Your task to perform on an android device: turn off data saver in the chrome app Image 0: 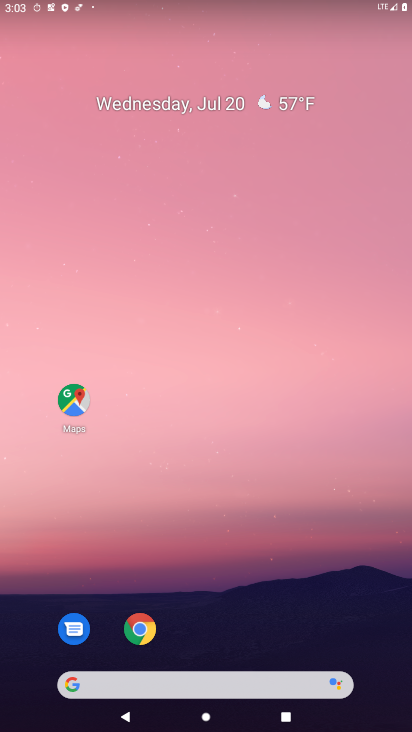
Step 0: click (141, 620)
Your task to perform on an android device: turn off data saver in the chrome app Image 1: 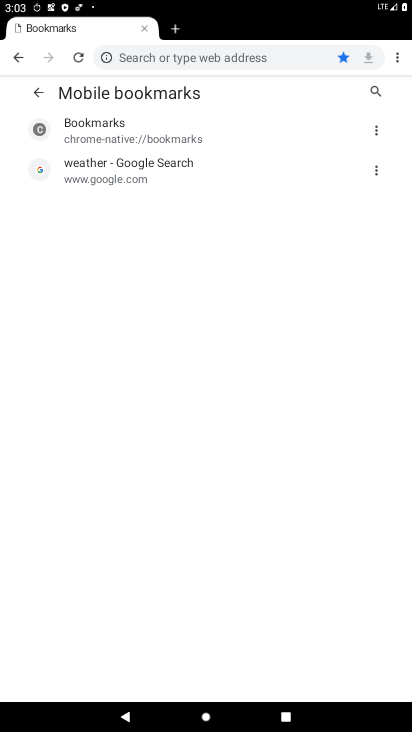
Step 1: drag from (402, 60) to (314, 304)
Your task to perform on an android device: turn off data saver in the chrome app Image 2: 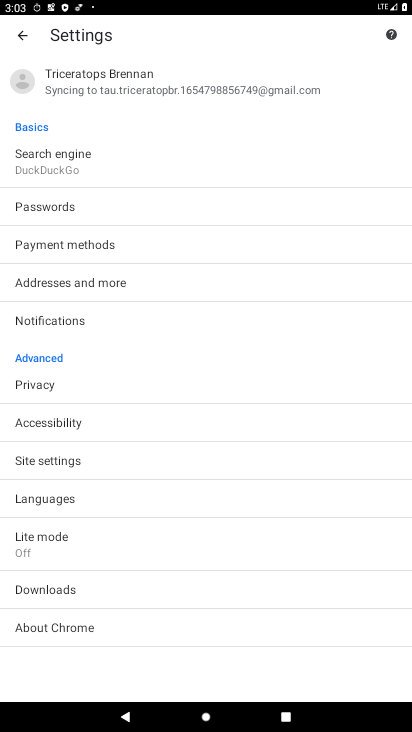
Step 2: click (67, 535)
Your task to perform on an android device: turn off data saver in the chrome app Image 3: 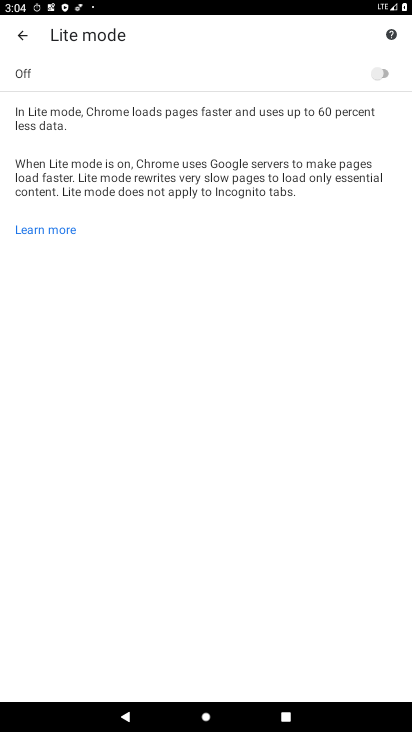
Step 3: task complete